Your task to perform on an android device: move a message to another label in the gmail app Image 0: 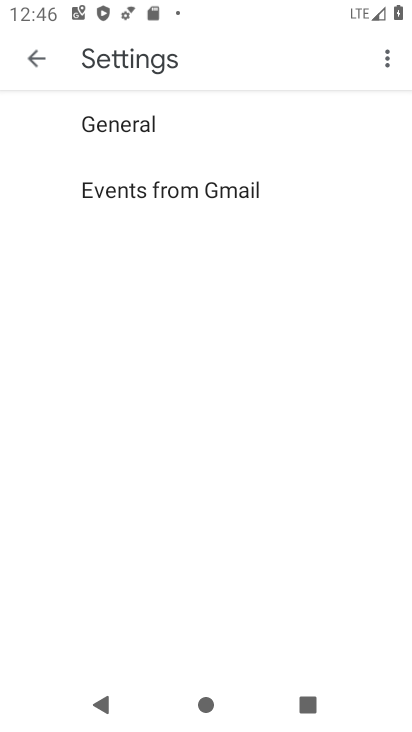
Step 0: press home button
Your task to perform on an android device: move a message to another label in the gmail app Image 1: 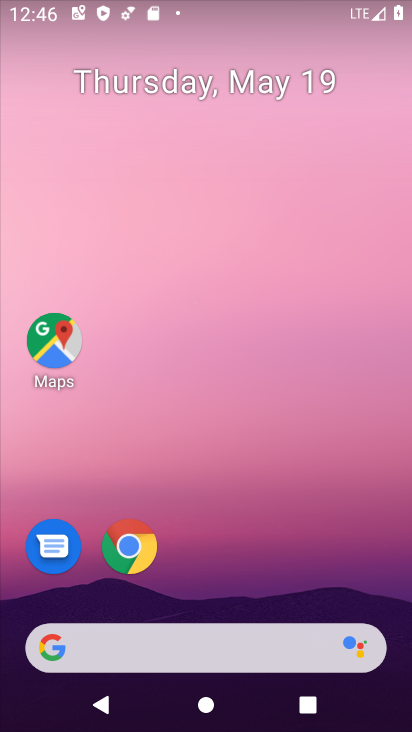
Step 1: drag from (211, 606) to (386, 147)
Your task to perform on an android device: move a message to another label in the gmail app Image 2: 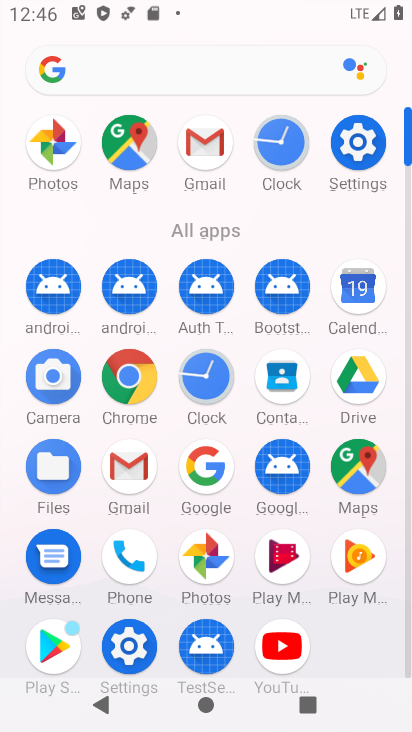
Step 2: click (212, 122)
Your task to perform on an android device: move a message to another label in the gmail app Image 3: 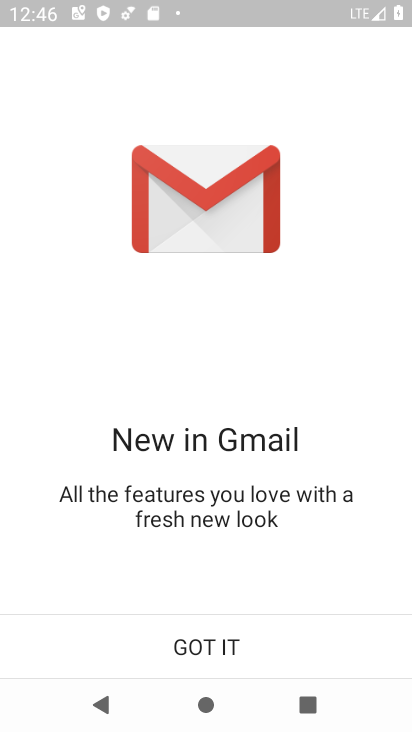
Step 3: click (178, 636)
Your task to perform on an android device: move a message to another label in the gmail app Image 4: 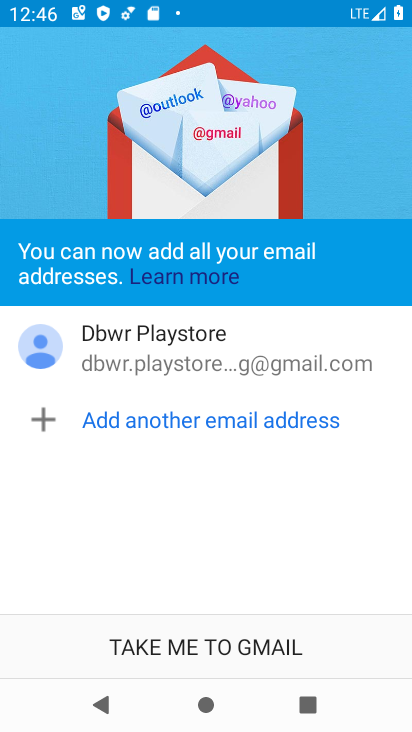
Step 4: click (178, 636)
Your task to perform on an android device: move a message to another label in the gmail app Image 5: 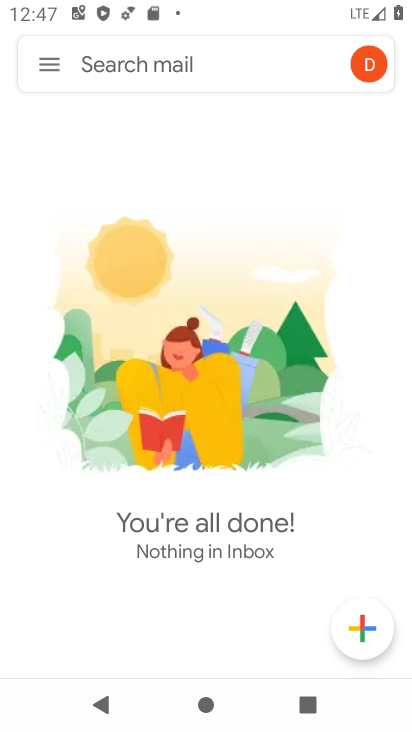
Step 5: task complete